Your task to perform on an android device: Open eBay Image 0: 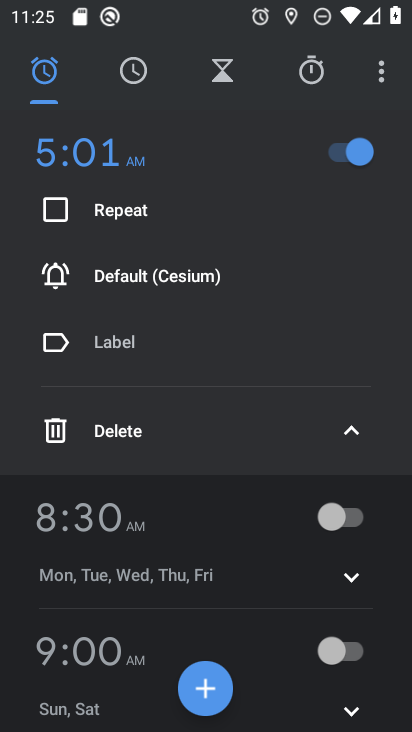
Step 0: press home button
Your task to perform on an android device: Open eBay Image 1: 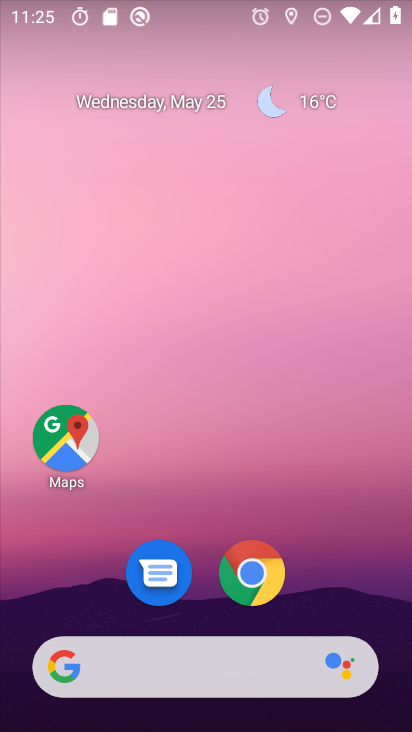
Step 1: click (254, 589)
Your task to perform on an android device: Open eBay Image 2: 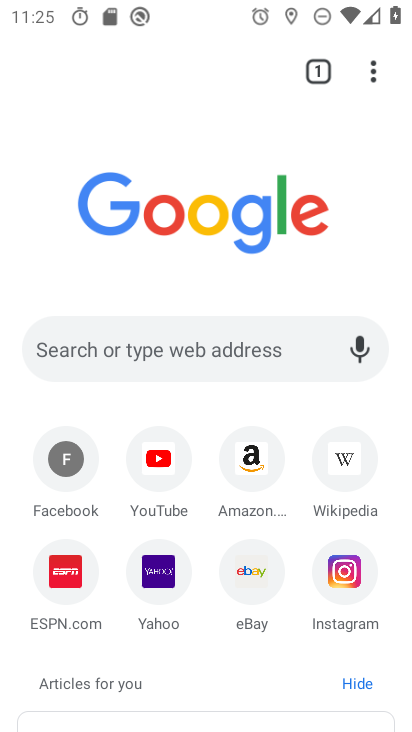
Step 2: click (254, 589)
Your task to perform on an android device: Open eBay Image 3: 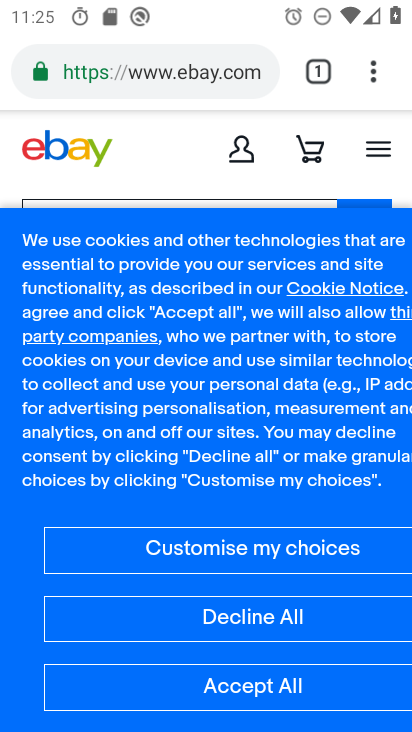
Step 3: task complete